Your task to perform on an android device: What's the time in New York? Image 0: 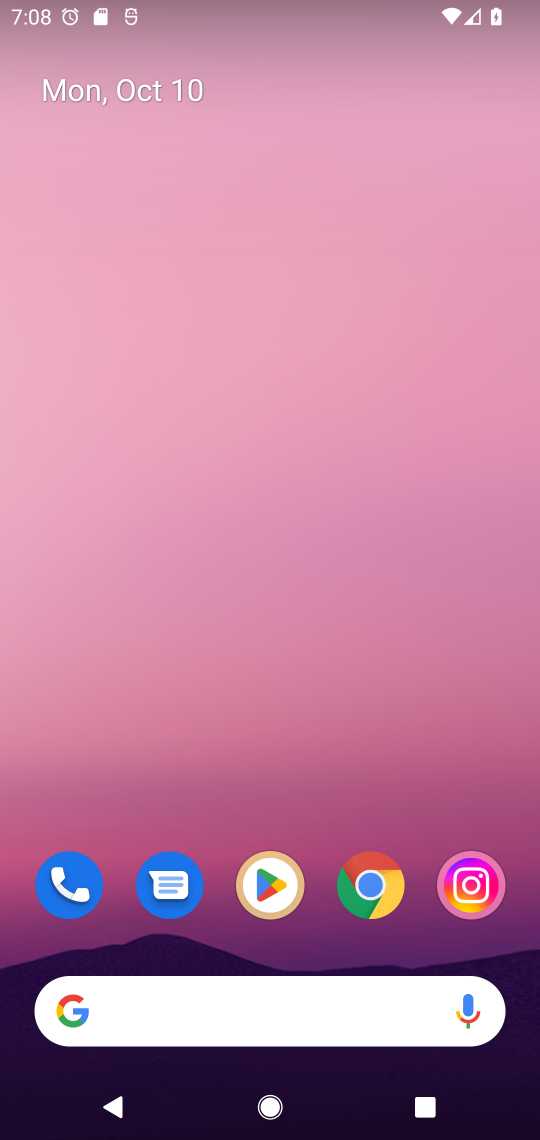
Step 0: click (368, 912)
Your task to perform on an android device: What's the time in New York? Image 1: 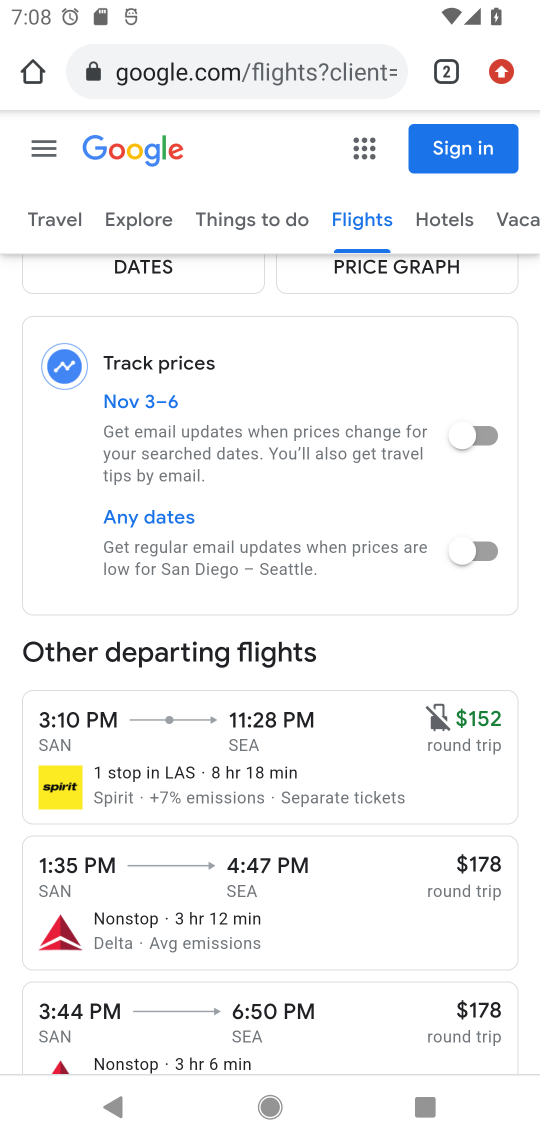
Step 1: click (214, 64)
Your task to perform on an android device: What's the time in New York? Image 2: 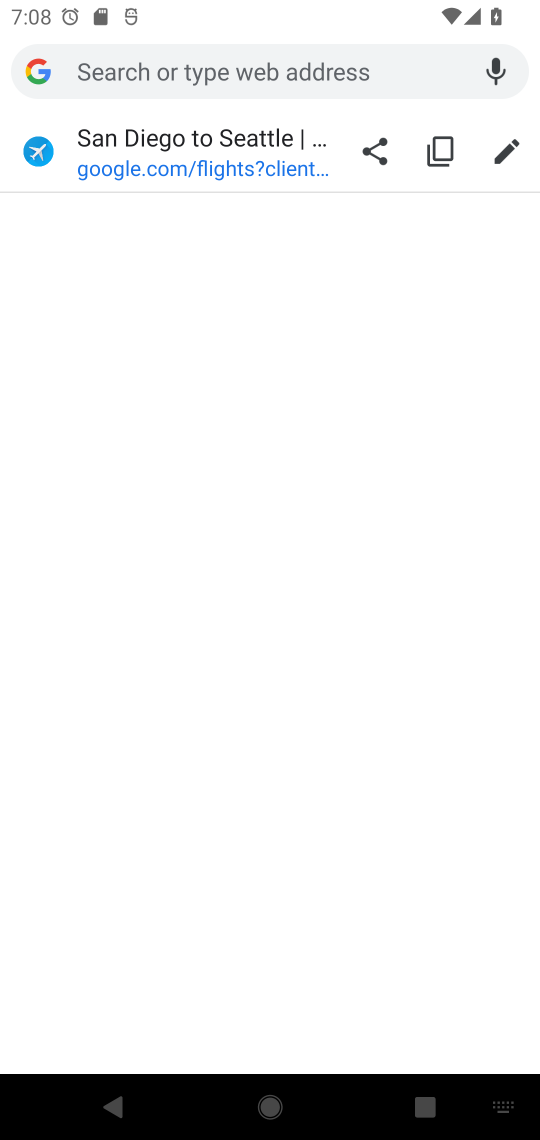
Step 2: click (232, 79)
Your task to perform on an android device: What's the time in New York? Image 3: 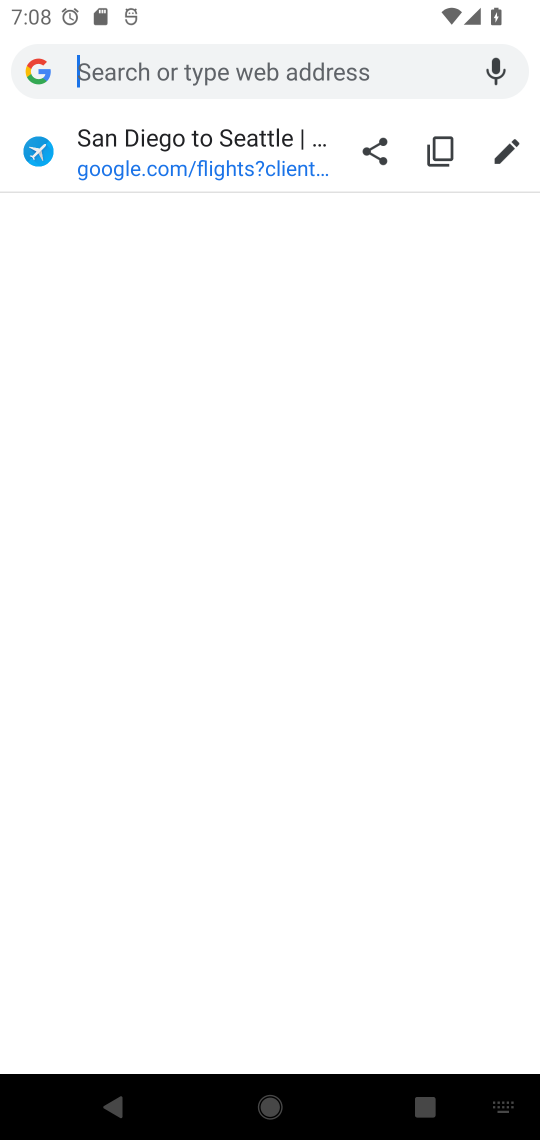
Step 3: type "time in New York"
Your task to perform on an android device: What's the time in New York? Image 4: 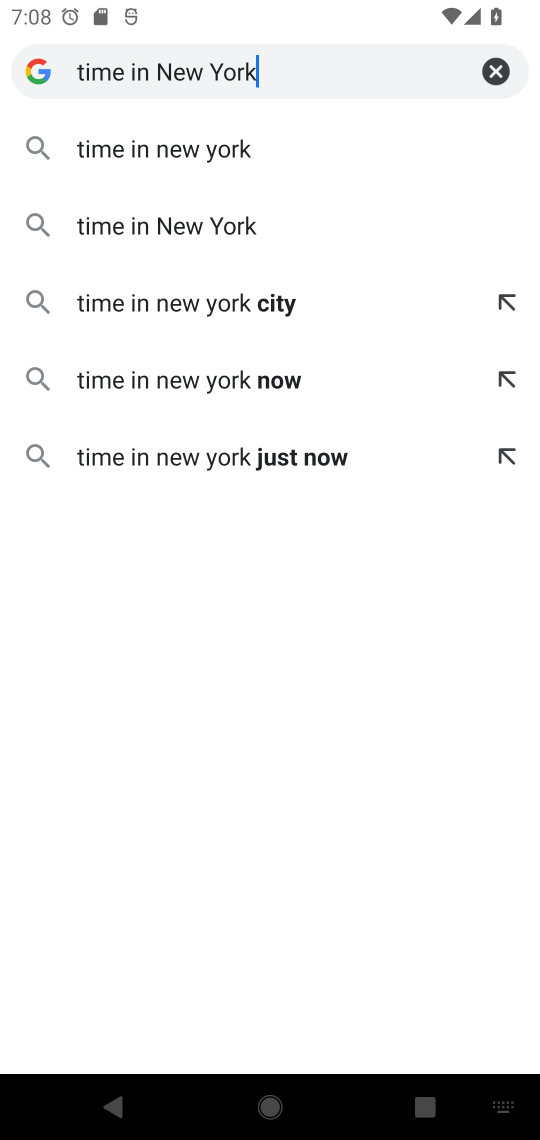
Step 4: click (142, 165)
Your task to perform on an android device: What's the time in New York? Image 5: 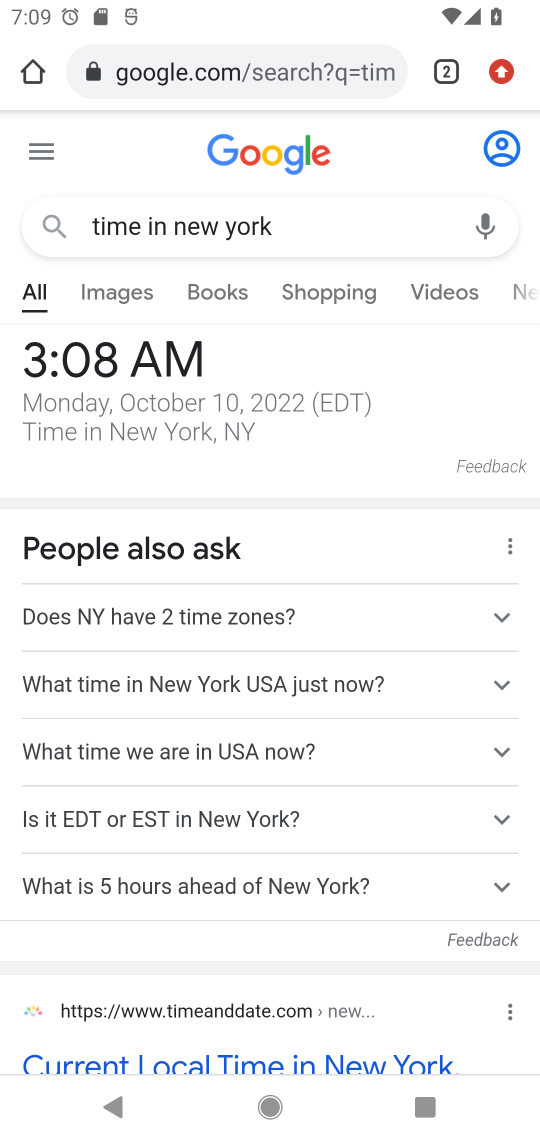
Step 5: task complete